Your task to perform on an android device: change the clock style Image 0: 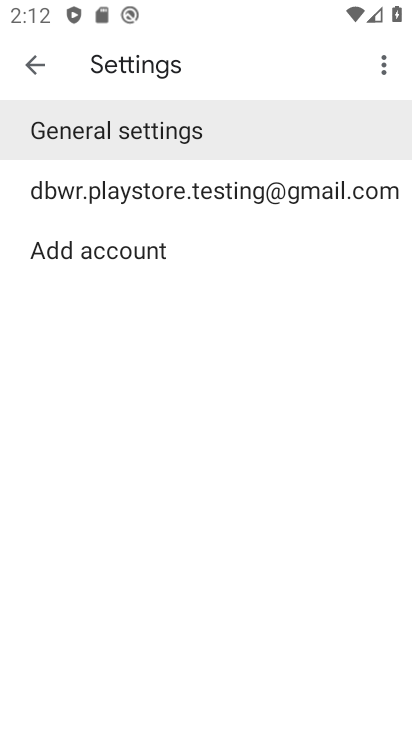
Step 0: press home button
Your task to perform on an android device: change the clock style Image 1: 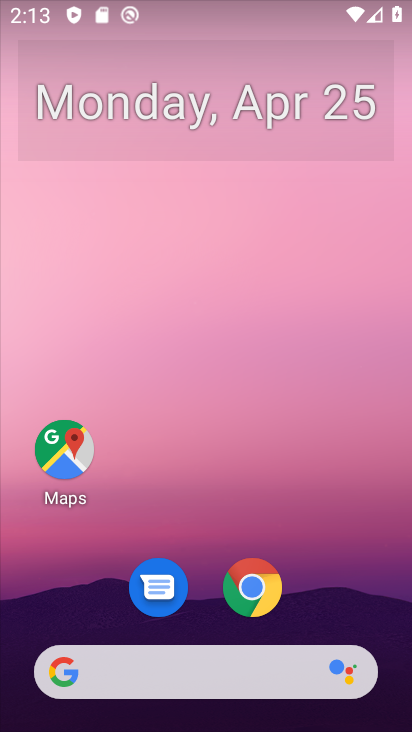
Step 1: drag from (353, 599) to (332, 78)
Your task to perform on an android device: change the clock style Image 2: 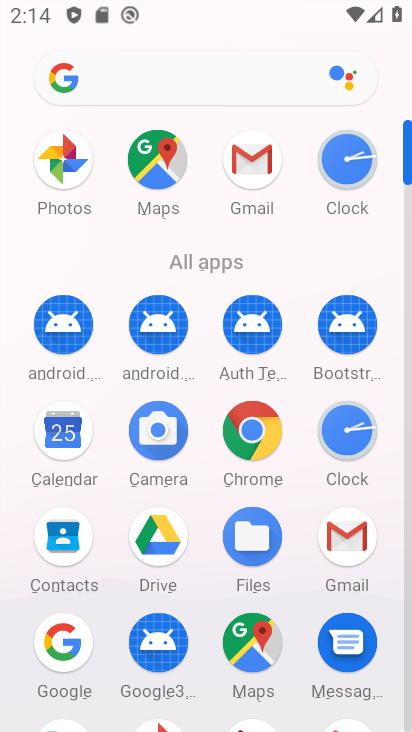
Step 2: click (350, 156)
Your task to perform on an android device: change the clock style Image 3: 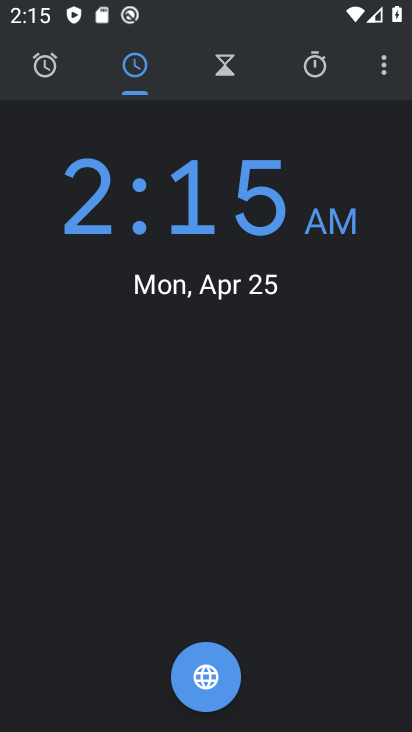
Step 3: drag from (386, 53) to (327, 573)
Your task to perform on an android device: change the clock style Image 4: 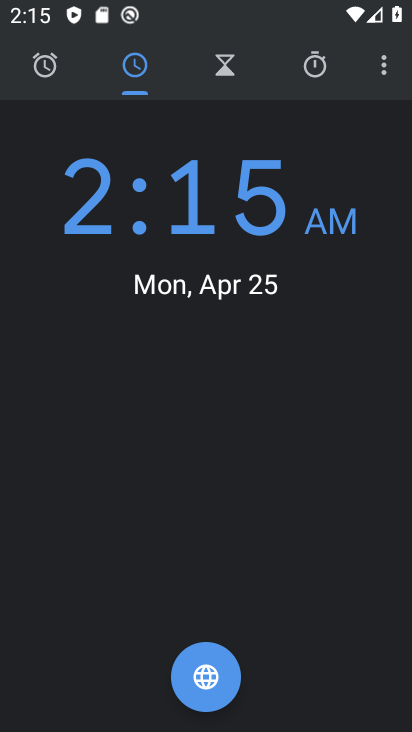
Step 4: click (378, 64)
Your task to perform on an android device: change the clock style Image 5: 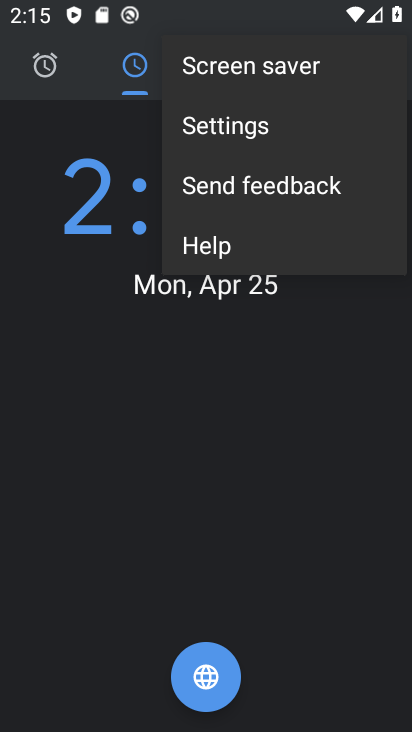
Step 5: click (262, 125)
Your task to perform on an android device: change the clock style Image 6: 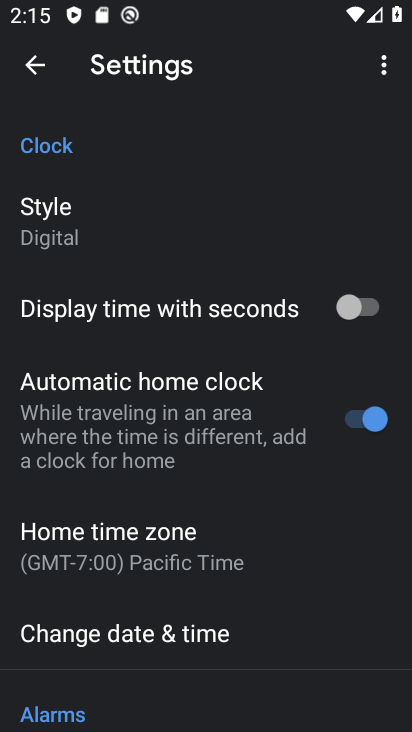
Step 6: click (35, 201)
Your task to perform on an android device: change the clock style Image 7: 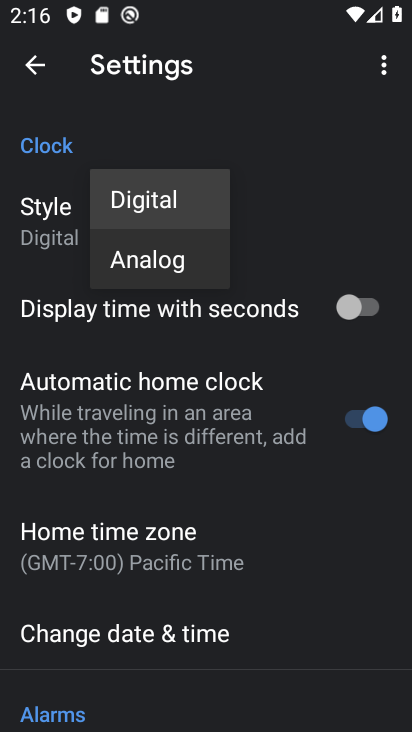
Step 7: click (143, 252)
Your task to perform on an android device: change the clock style Image 8: 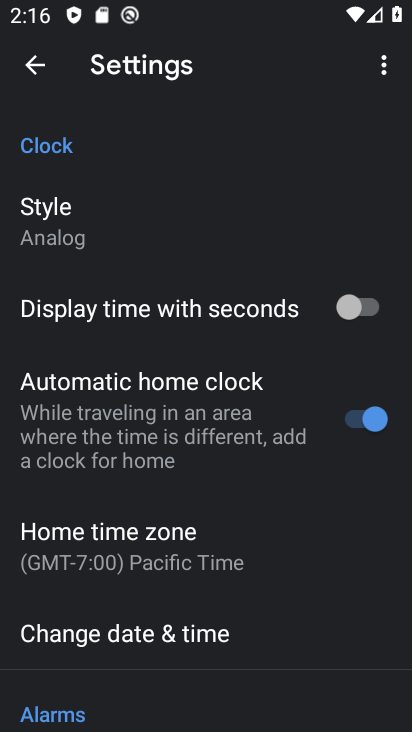
Step 8: task complete